Your task to perform on an android device: manage bookmarks in the chrome app Image 0: 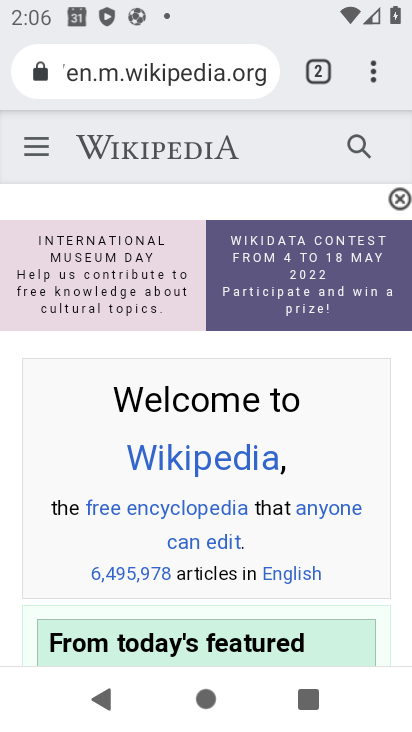
Step 0: click (379, 69)
Your task to perform on an android device: manage bookmarks in the chrome app Image 1: 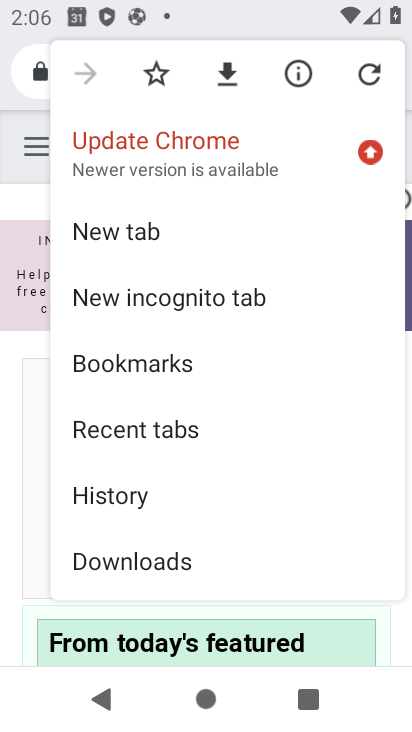
Step 1: click (157, 359)
Your task to perform on an android device: manage bookmarks in the chrome app Image 2: 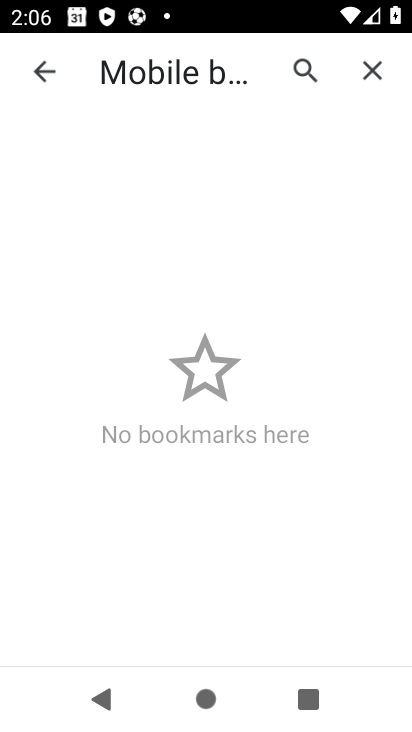
Step 2: task complete